Your task to perform on an android device: Open Yahoo.com Image 0: 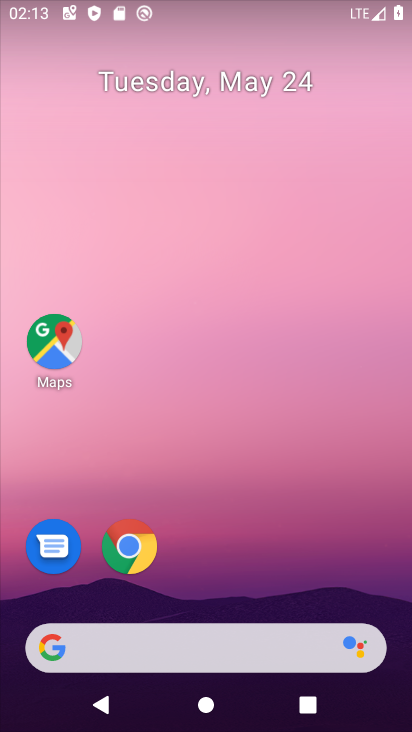
Step 0: drag from (149, 615) to (239, 3)
Your task to perform on an android device: Open Yahoo.com Image 1: 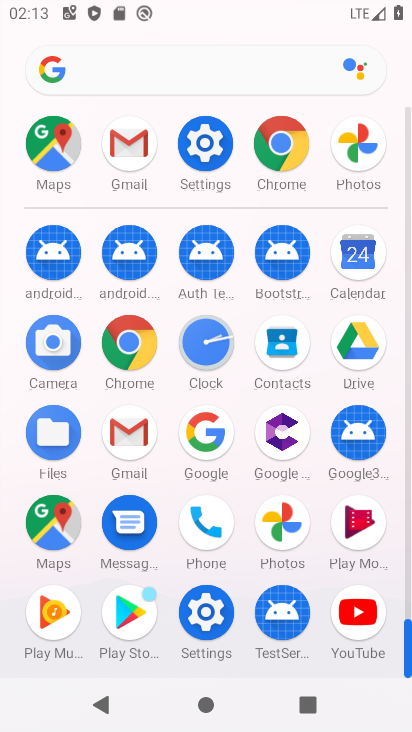
Step 1: click (152, 63)
Your task to perform on an android device: Open Yahoo.com Image 2: 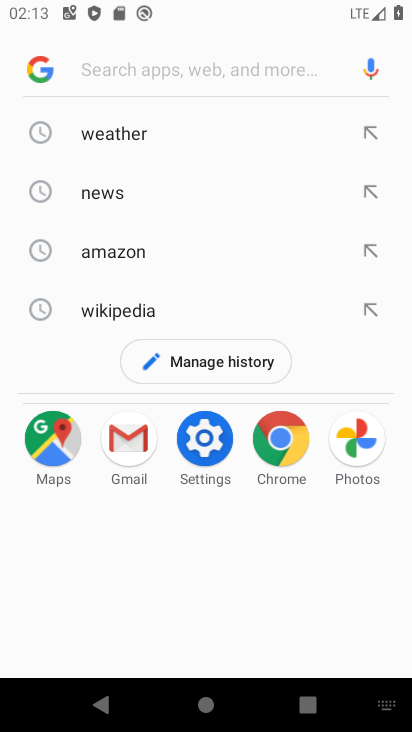
Step 2: type "yahoo.com"
Your task to perform on an android device: Open Yahoo.com Image 3: 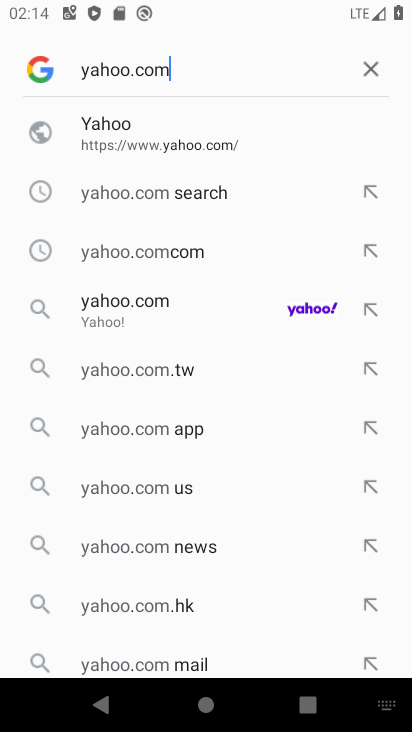
Step 3: click (156, 143)
Your task to perform on an android device: Open Yahoo.com Image 4: 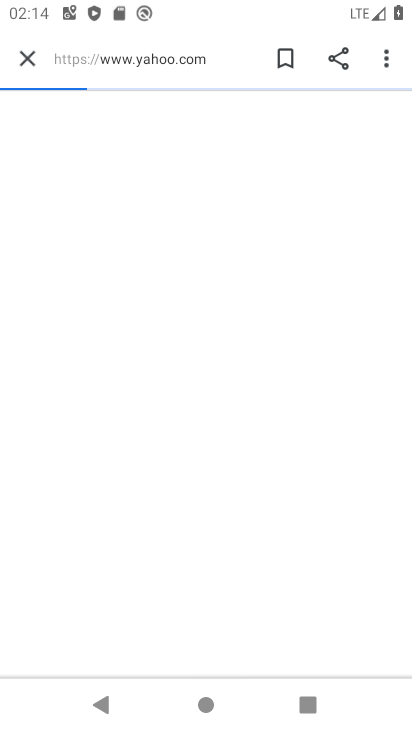
Step 4: task complete